Your task to perform on an android device: turn on data saver in the chrome app Image 0: 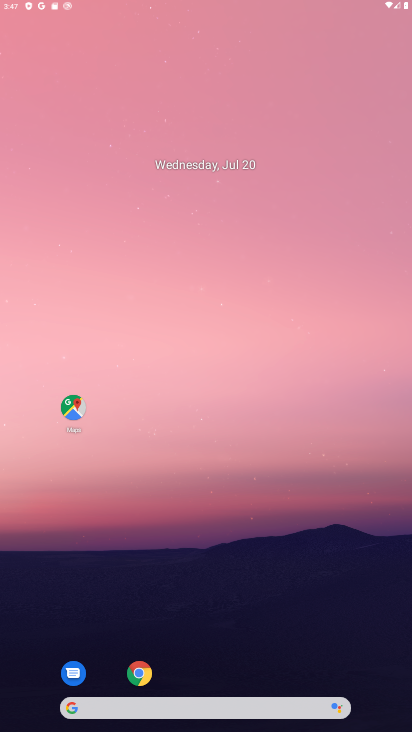
Step 0: press home button
Your task to perform on an android device: turn on data saver in the chrome app Image 1: 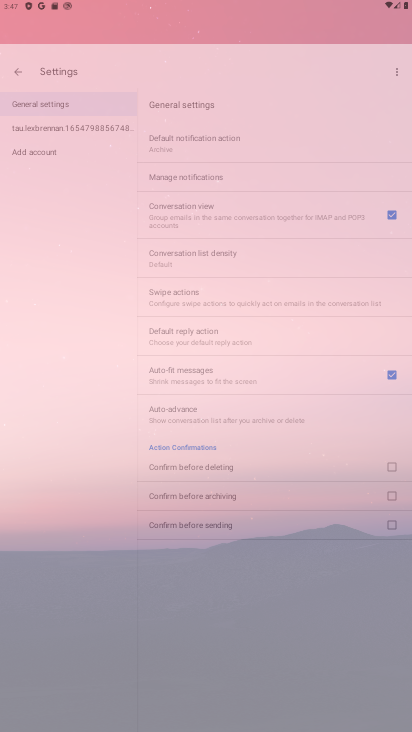
Step 1: press home button
Your task to perform on an android device: turn on data saver in the chrome app Image 2: 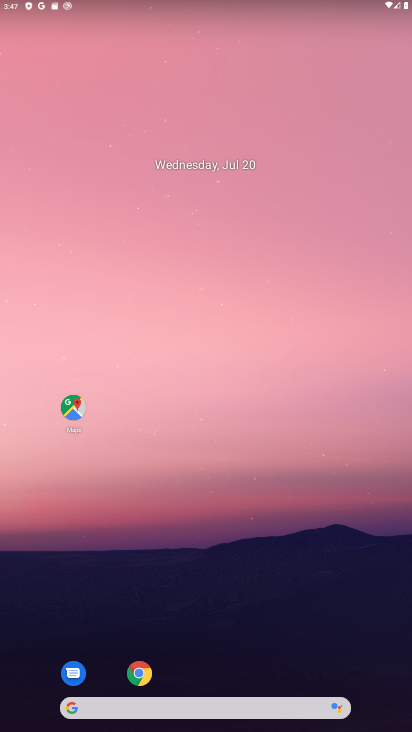
Step 2: press home button
Your task to perform on an android device: turn on data saver in the chrome app Image 3: 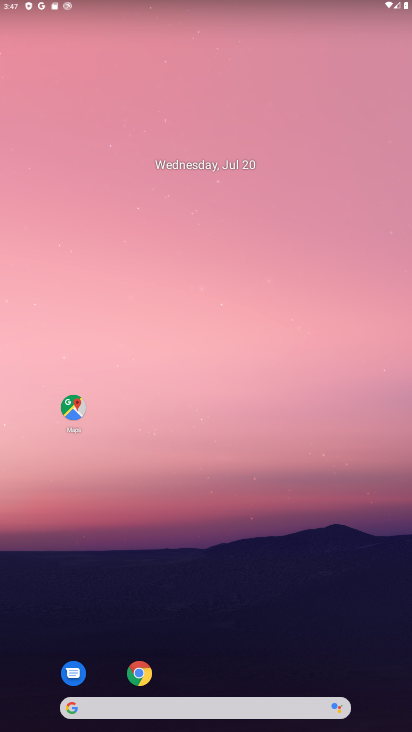
Step 3: click (139, 674)
Your task to perform on an android device: turn on data saver in the chrome app Image 4: 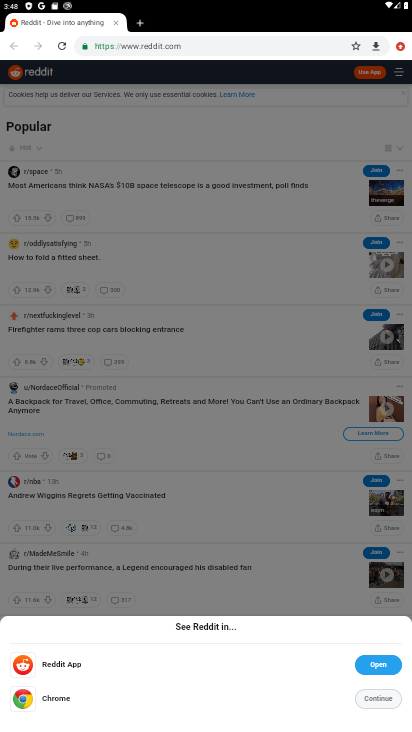
Step 4: drag from (392, 44) to (297, 323)
Your task to perform on an android device: turn on data saver in the chrome app Image 5: 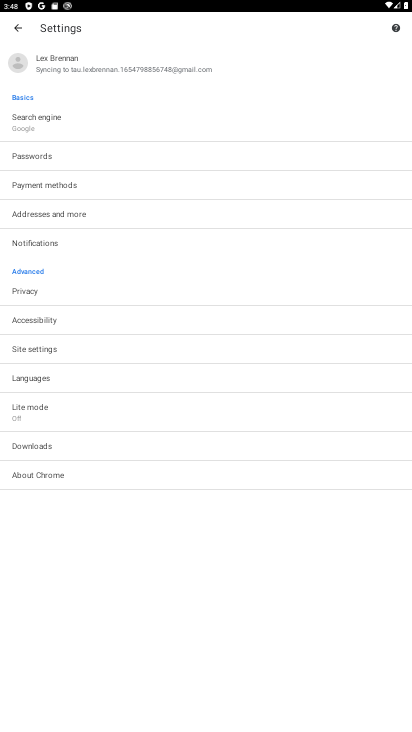
Step 5: click (16, 413)
Your task to perform on an android device: turn on data saver in the chrome app Image 6: 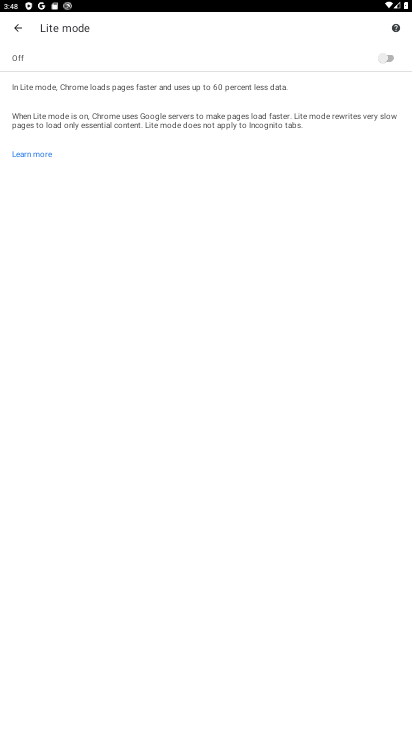
Step 6: click (382, 59)
Your task to perform on an android device: turn on data saver in the chrome app Image 7: 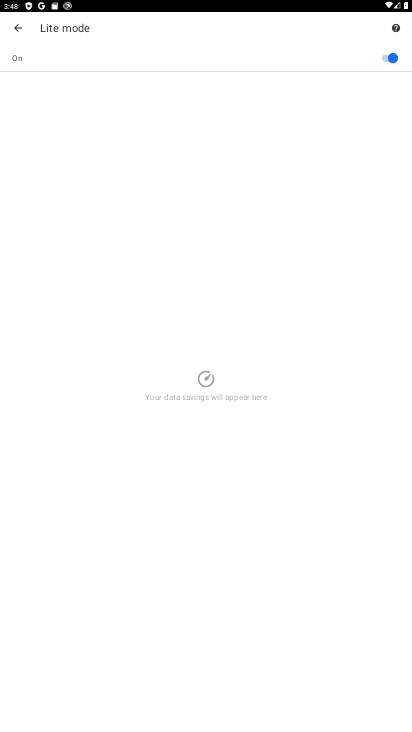
Step 7: task complete